Your task to perform on an android device: Open battery settings Image 0: 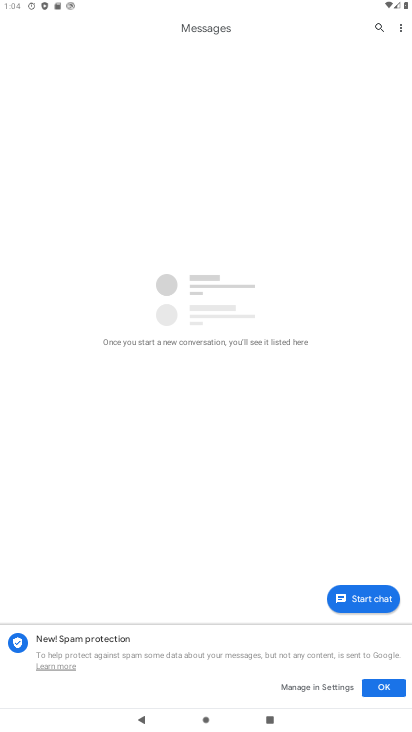
Step 0: press home button
Your task to perform on an android device: Open battery settings Image 1: 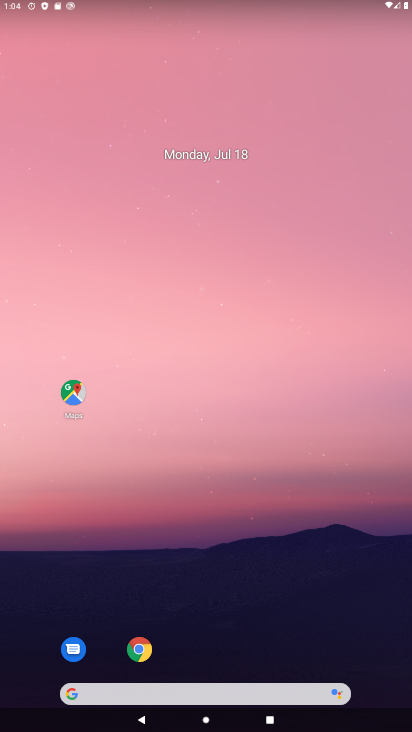
Step 1: drag from (217, 680) to (202, 180)
Your task to perform on an android device: Open battery settings Image 2: 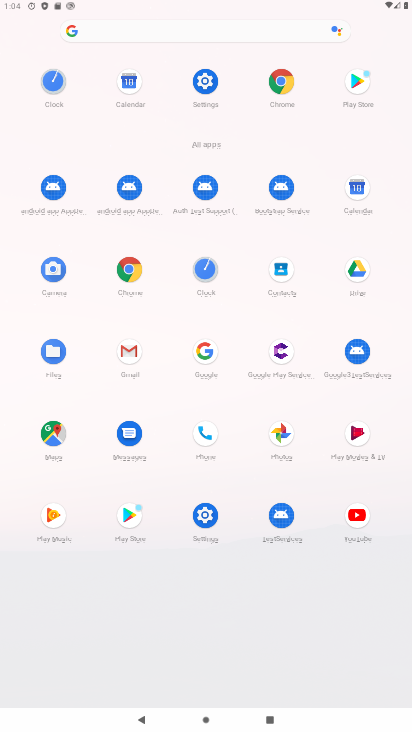
Step 2: click (196, 516)
Your task to perform on an android device: Open battery settings Image 3: 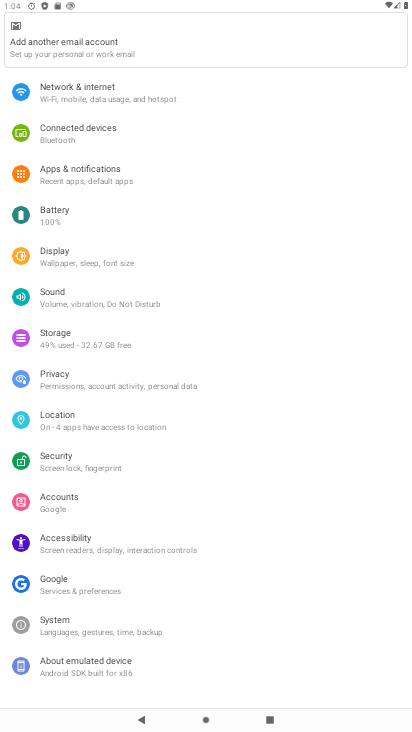
Step 3: click (40, 220)
Your task to perform on an android device: Open battery settings Image 4: 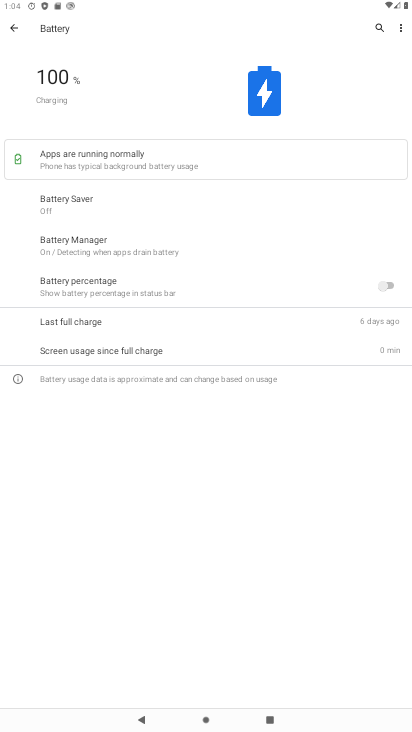
Step 4: task complete